Your task to perform on an android device: Go to battery settings Image 0: 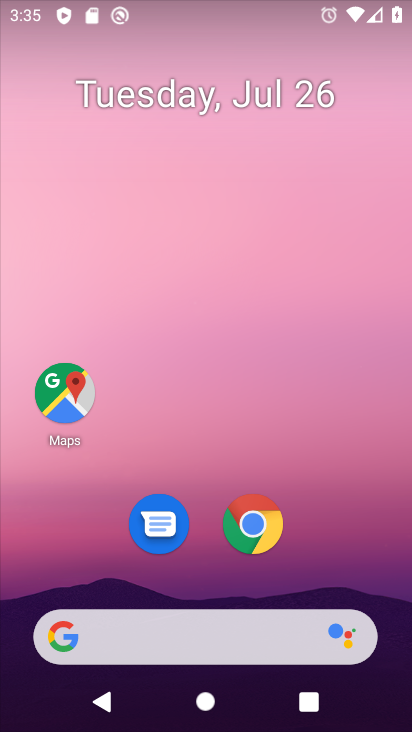
Step 0: drag from (331, 538) to (272, 42)
Your task to perform on an android device: Go to battery settings Image 1: 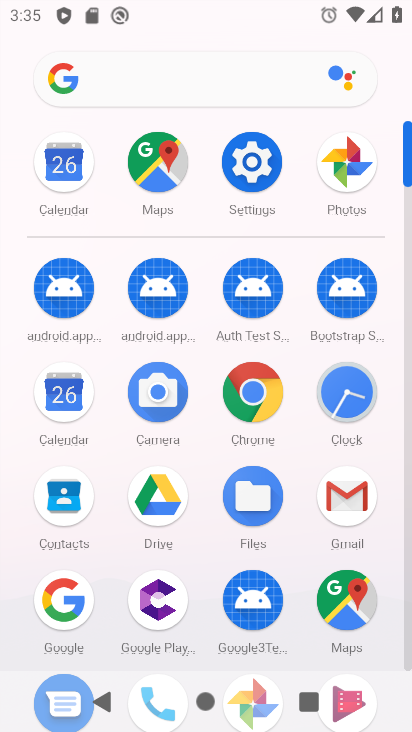
Step 1: click (272, 156)
Your task to perform on an android device: Go to battery settings Image 2: 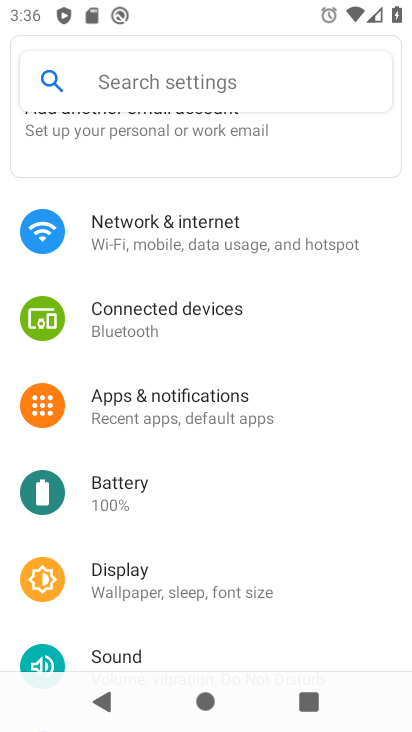
Step 2: click (115, 483)
Your task to perform on an android device: Go to battery settings Image 3: 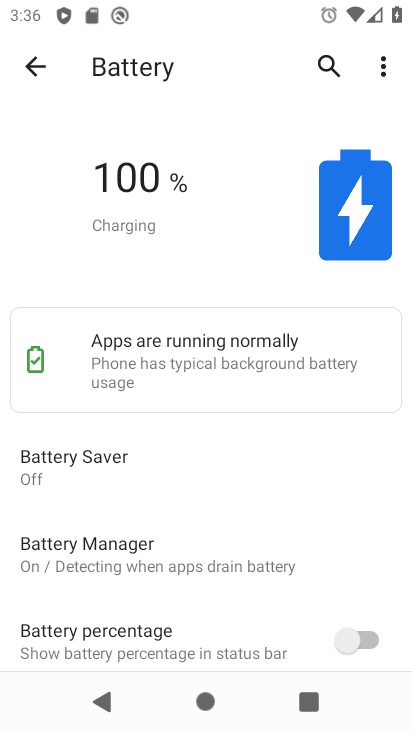
Step 3: task complete